Your task to perform on an android device: read, delete, or share a saved page in the chrome app Image 0: 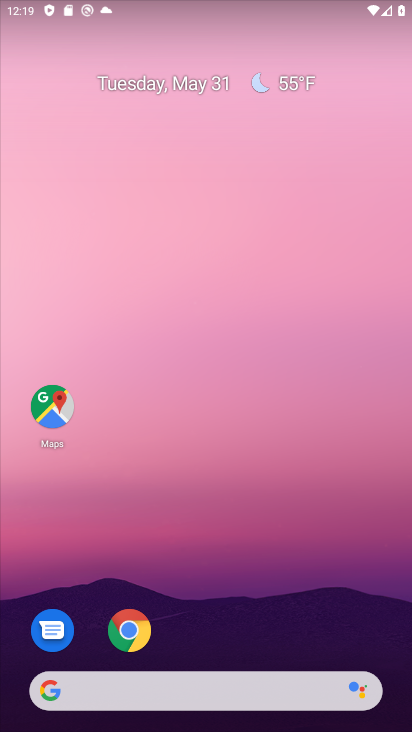
Step 0: click (129, 630)
Your task to perform on an android device: read, delete, or share a saved page in the chrome app Image 1: 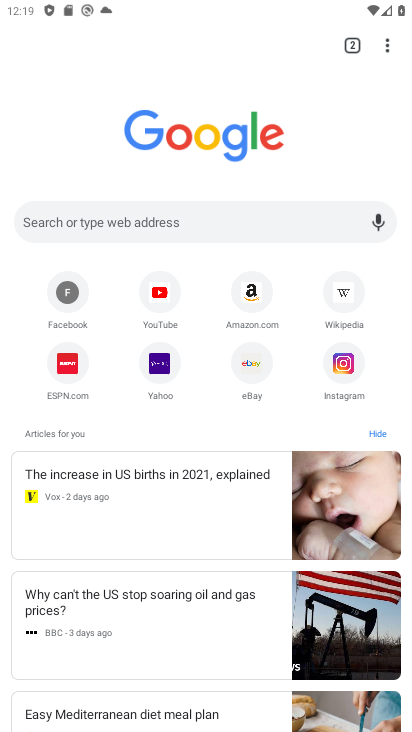
Step 1: click (386, 52)
Your task to perform on an android device: read, delete, or share a saved page in the chrome app Image 2: 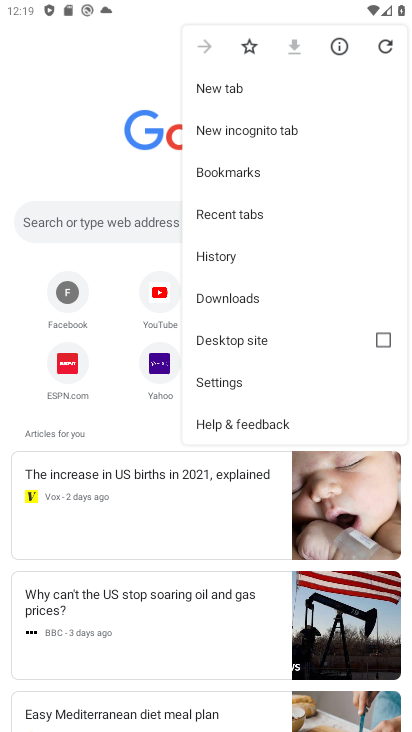
Step 2: click (227, 302)
Your task to perform on an android device: read, delete, or share a saved page in the chrome app Image 3: 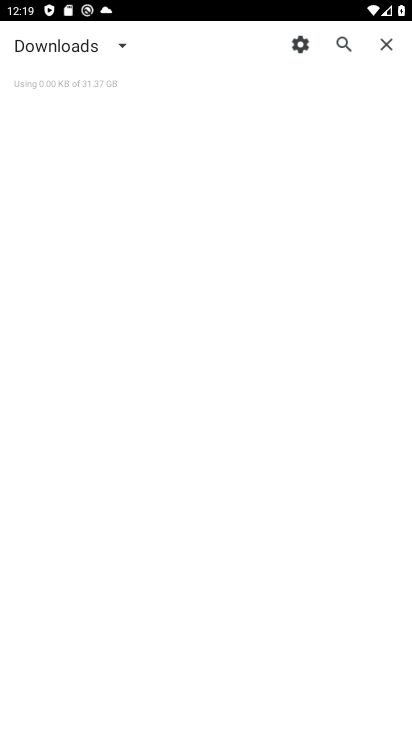
Step 3: click (114, 47)
Your task to perform on an android device: read, delete, or share a saved page in the chrome app Image 4: 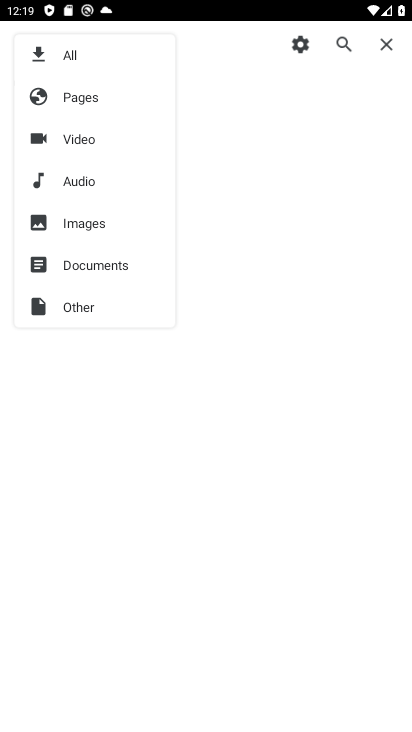
Step 4: click (76, 106)
Your task to perform on an android device: read, delete, or share a saved page in the chrome app Image 5: 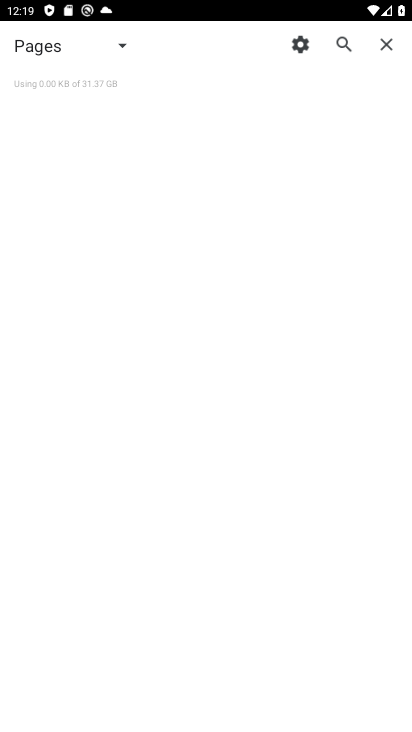
Step 5: task complete